Your task to perform on an android device: Is it going to rain tomorrow? Image 0: 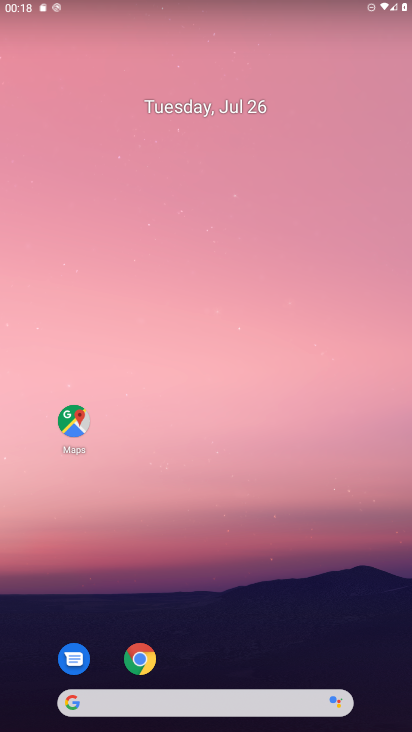
Step 0: press home button
Your task to perform on an android device: Is it going to rain tomorrow? Image 1: 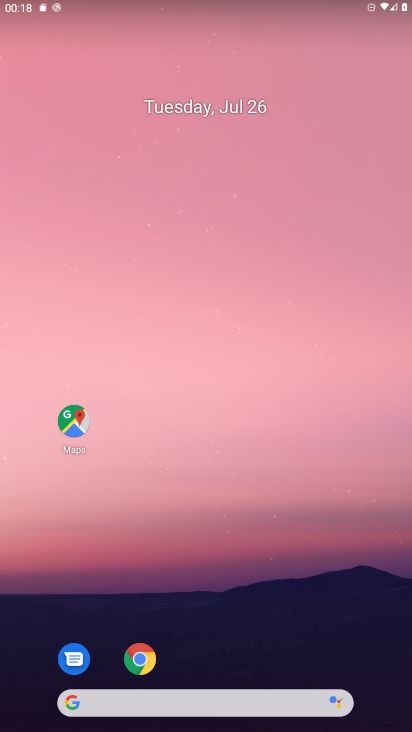
Step 1: drag from (334, 641) to (277, 0)
Your task to perform on an android device: Is it going to rain tomorrow? Image 2: 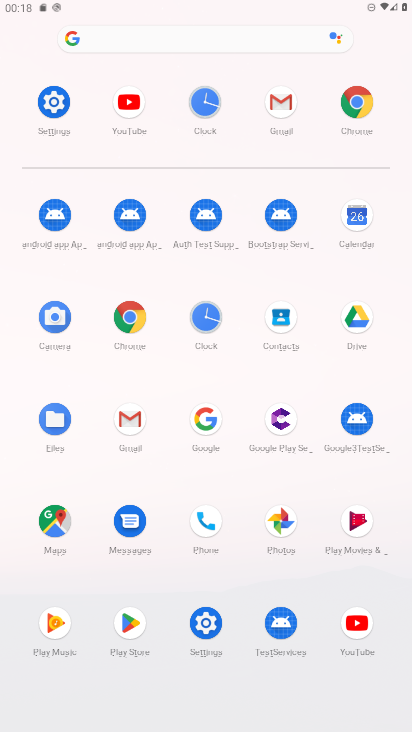
Step 2: click (124, 347)
Your task to perform on an android device: Is it going to rain tomorrow? Image 3: 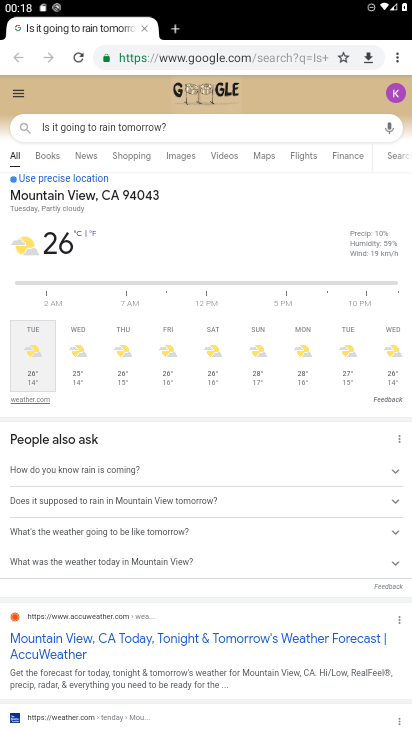
Step 3: click (219, 57)
Your task to perform on an android device: Is it going to rain tomorrow? Image 4: 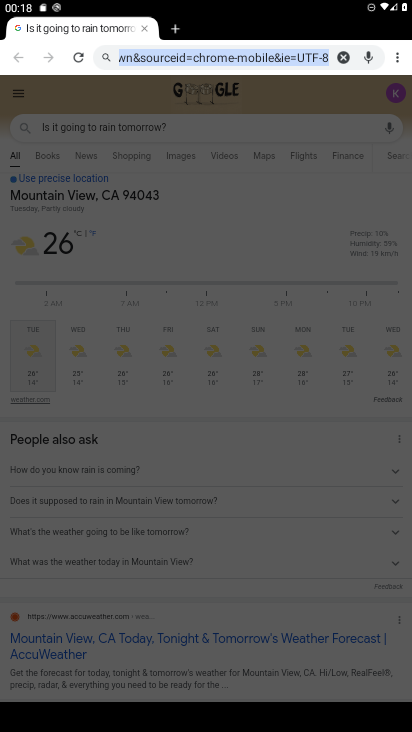
Step 4: type "Is it going to rain tomorrow?"
Your task to perform on an android device: Is it going to rain tomorrow? Image 5: 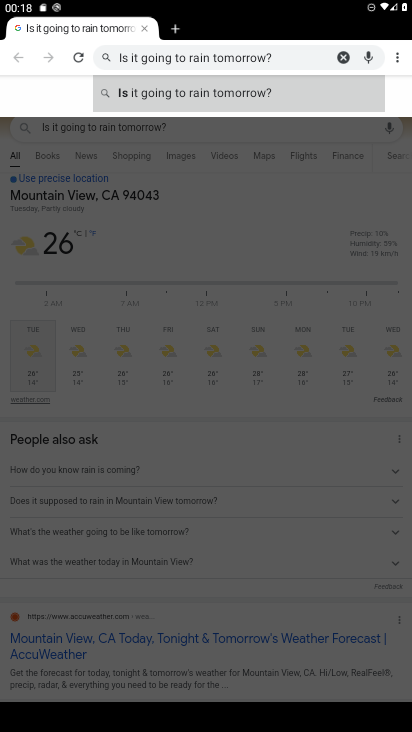
Step 5: click (295, 90)
Your task to perform on an android device: Is it going to rain tomorrow? Image 6: 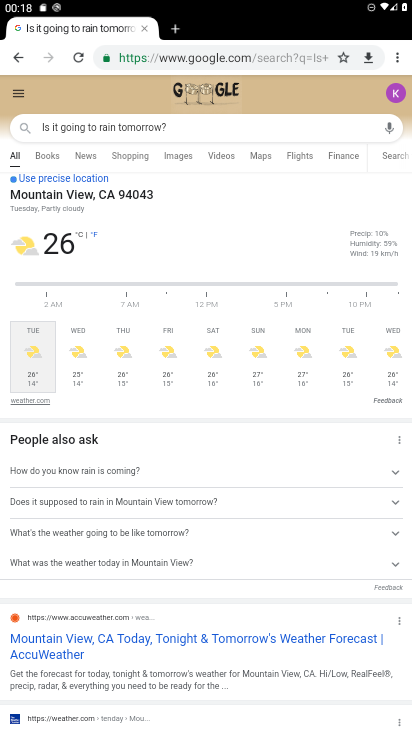
Step 6: task complete